Your task to perform on an android device: Check the weather Image 0: 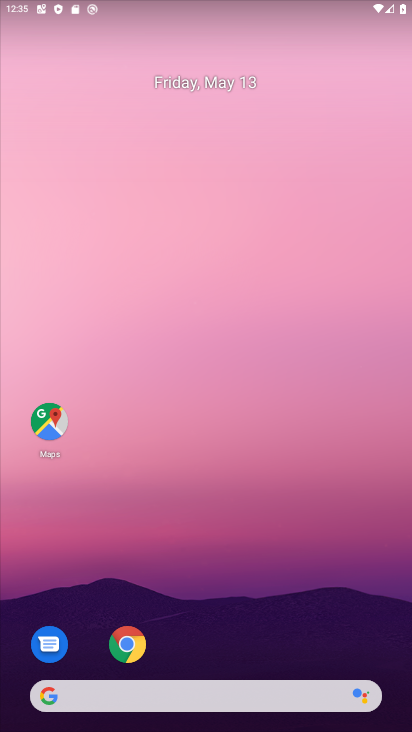
Step 0: click (191, 686)
Your task to perform on an android device: Check the weather Image 1: 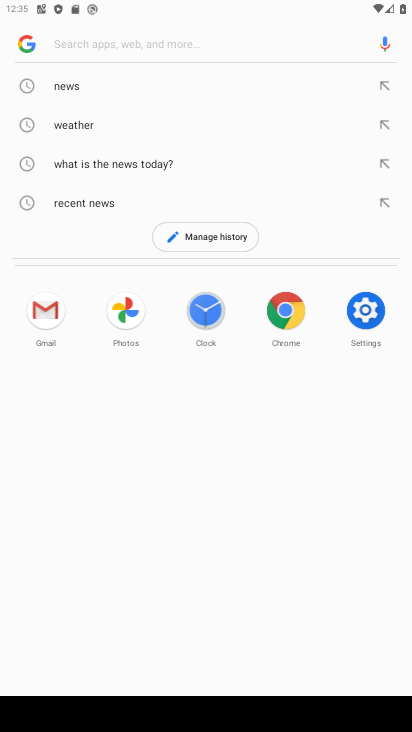
Step 1: click (87, 120)
Your task to perform on an android device: Check the weather Image 2: 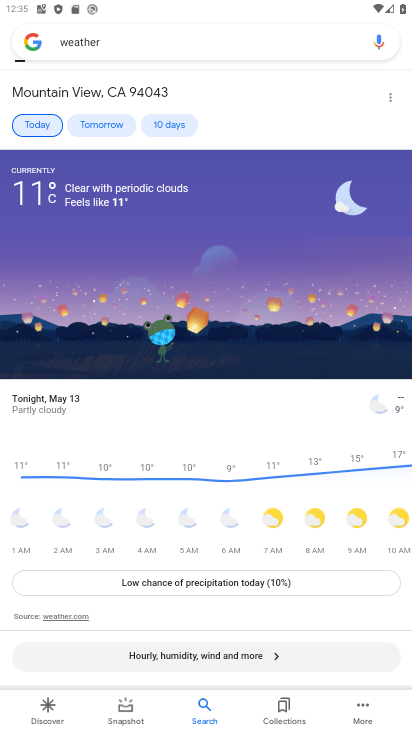
Step 2: task complete